Your task to perform on an android device: change notification settings in the gmail app Image 0: 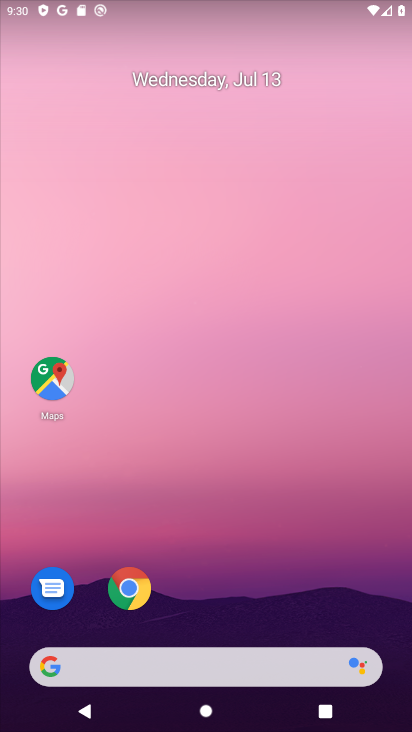
Step 0: drag from (216, 622) to (235, 120)
Your task to perform on an android device: change notification settings in the gmail app Image 1: 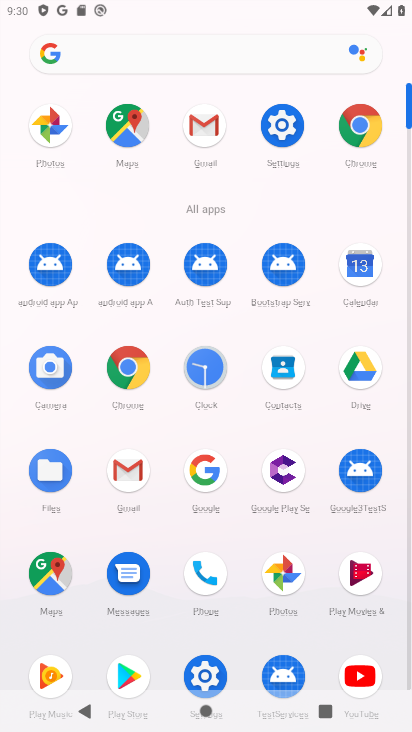
Step 1: click (129, 474)
Your task to perform on an android device: change notification settings in the gmail app Image 2: 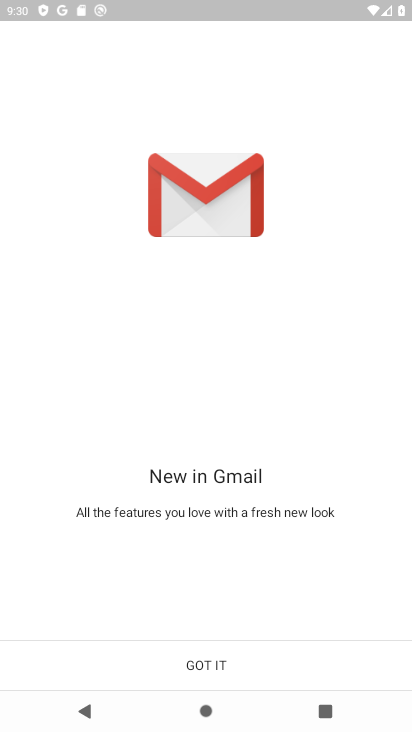
Step 2: click (204, 673)
Your task to perform on an android device: change notification settings in the gmail app Image 3: 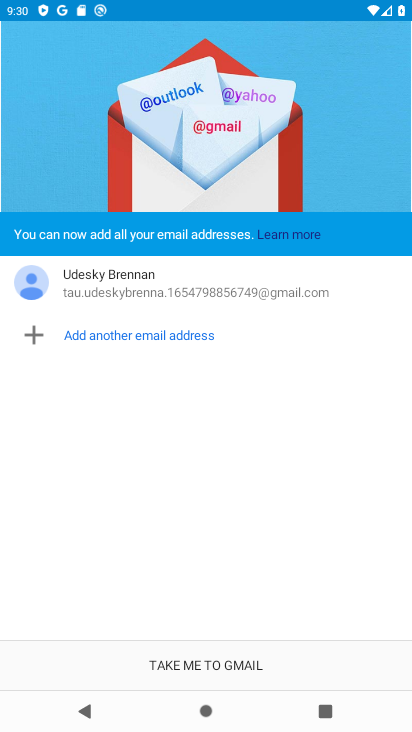
Step 3: click (206, 673)
Your task to perform on an android device: change notification settings in the gmail app Image 4: 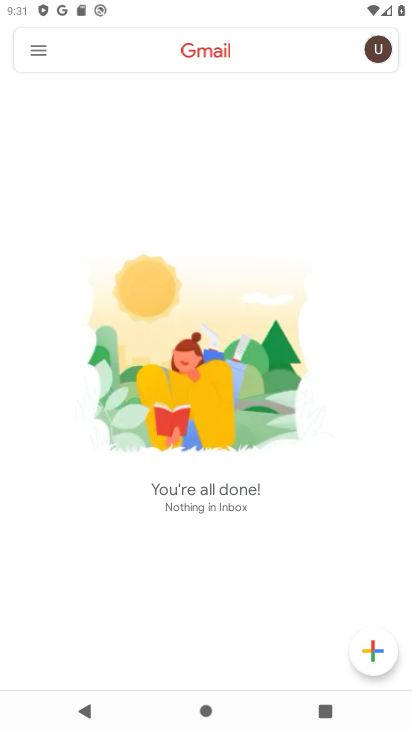
Step 4: click (39, 45)
Your task to perform on an android device: change notification settings in the gmail app Image 5: 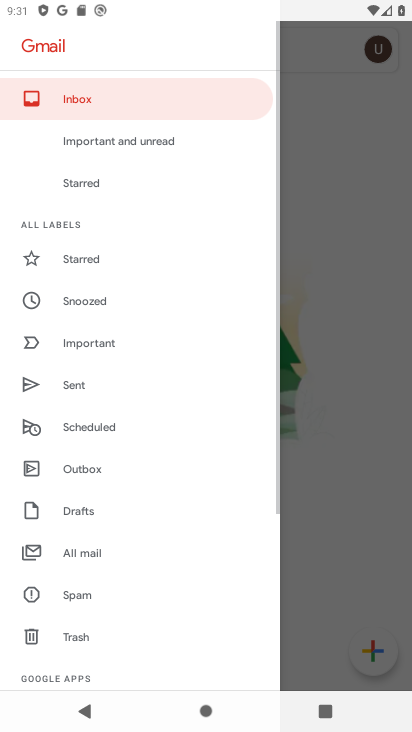
Step 5: drag from (155, 638) to (144, 321)
Your task to perform on an android device: change notification settings in the gmail app Image 6: 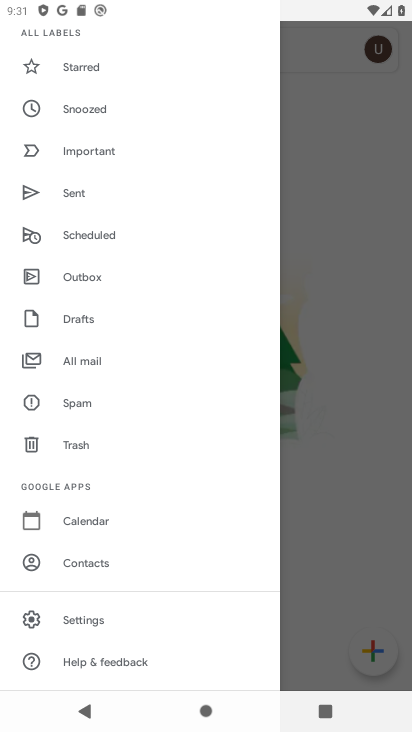
Step 6: click (93, 621)
Your task to perform on an android device: change notification settings in the gmail app Image 7: 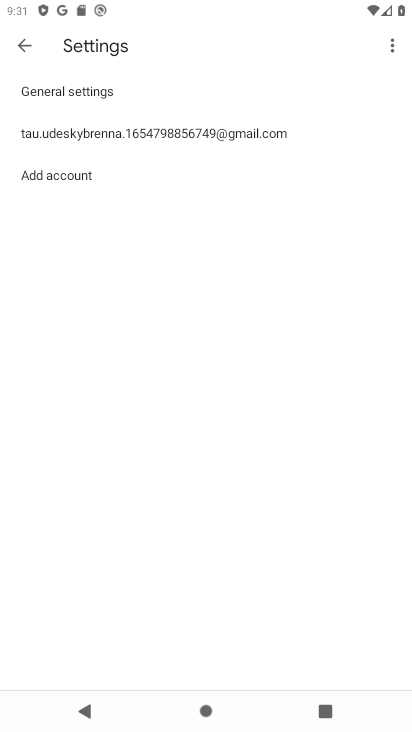
Step 7: click (90, 149)
Your task to perform on an android device: change notification settings in the gmail app Image 8: 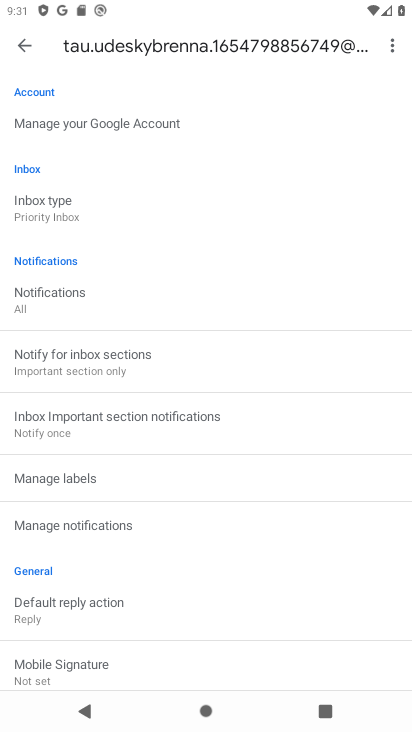
Step 8: click (82, 297)
Your task to perform on an android device: change notification settings in the gmail app Image 9: 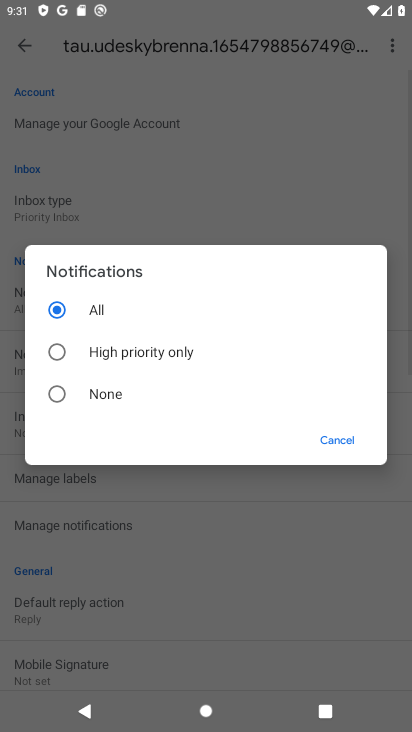
Step 9: click (62, 396)
Your task to perform on an android device: change notification settings in the gmail app Image 10: 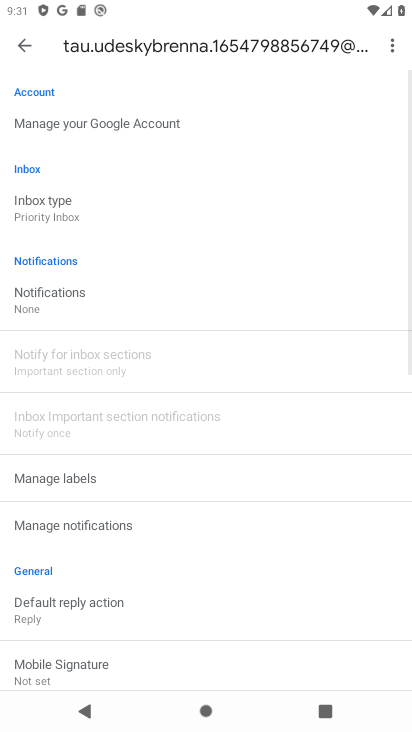
Step 10: task complete